Your task to perform on an android device: toggle pop-ups in chrome Image 0: 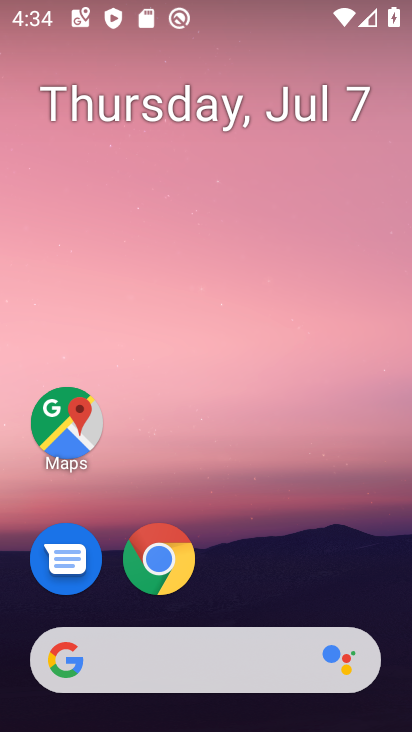
Step 0: click (166, 585)
Your task to perform on an android device: toggle pop-ups in chrome Image 1: 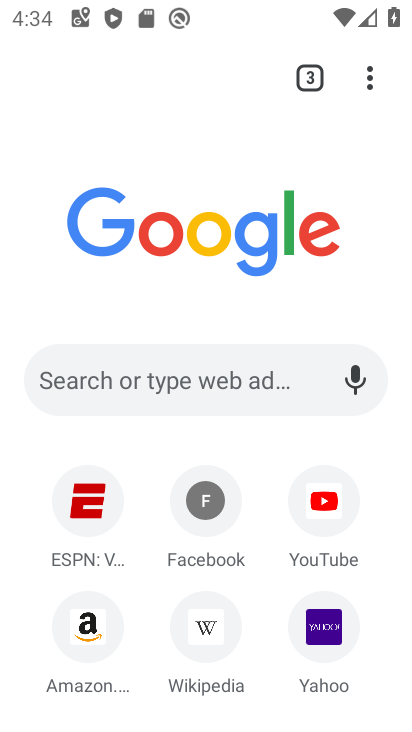
Step 1: drag from (365, 70) to (103, 638)
Your task to perform on an android device: toggle pop-ups in chrome Image 2: 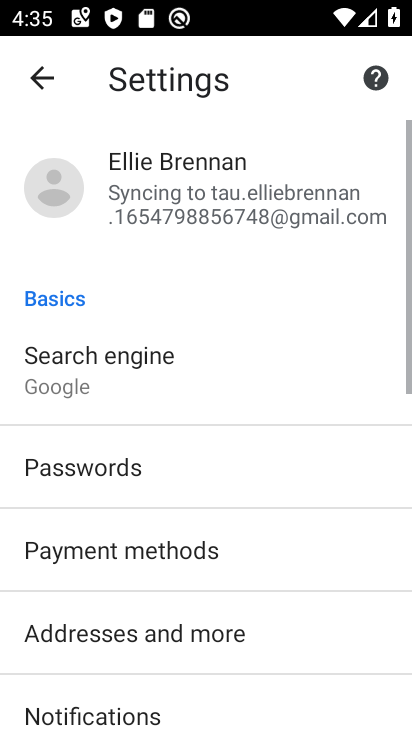
Step 2: drag from (134, 614) to (246, 116)
Your task to perform on an android device: toggle pop-ups in chrome Image 3: 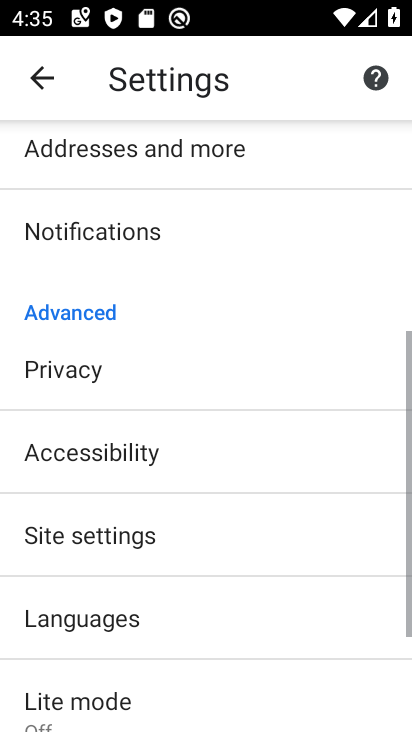
Step 3: click (103, 557)
Your task to perform on an android device: toggle pop-ups in chrome Image 4: 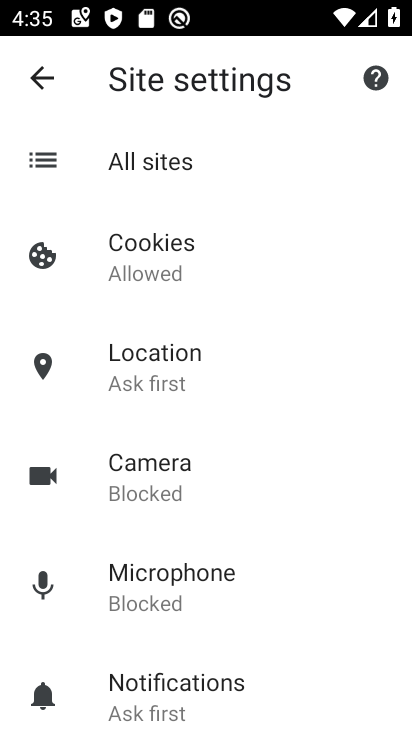
Step 4: drag from (209, 696) to (245, 168)
Your task to perform on an android device: toggle pop-ups in chrome Image 5: 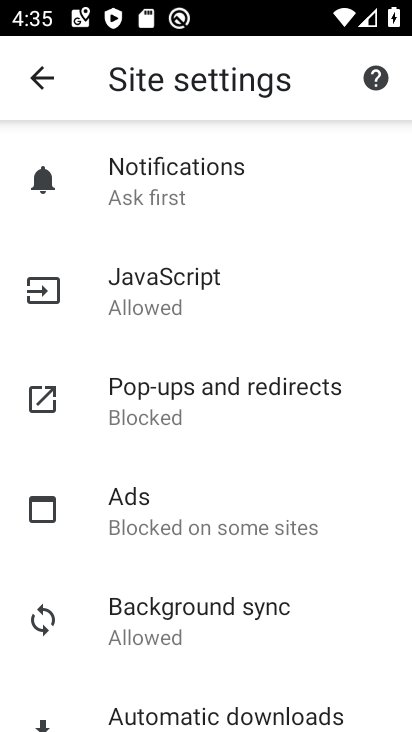
Step 5: click (174, 417)
Your task to perform on an android device: toggle pop-ups in chrome Image 6: 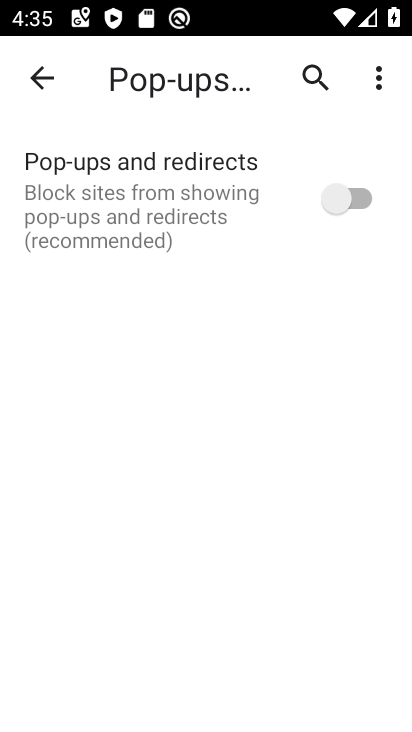
Step 6: click (341, 195)
Your task to perform on an android device: toggle pop-ups in chrome Image 7: 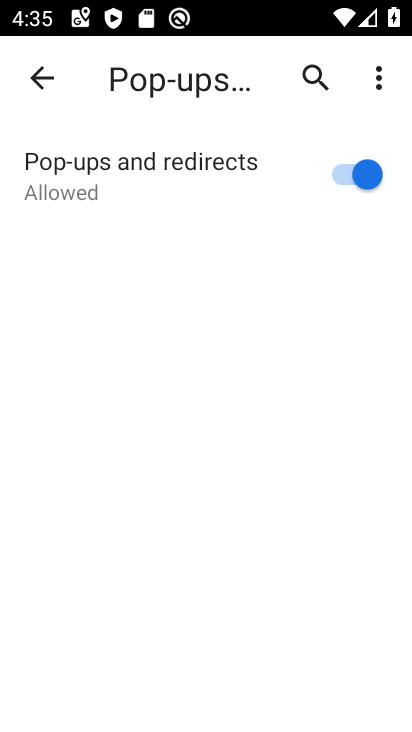
Step 7: task complete